Your task to perform on an android device: Is it going to rain tomorrow? Image 0: 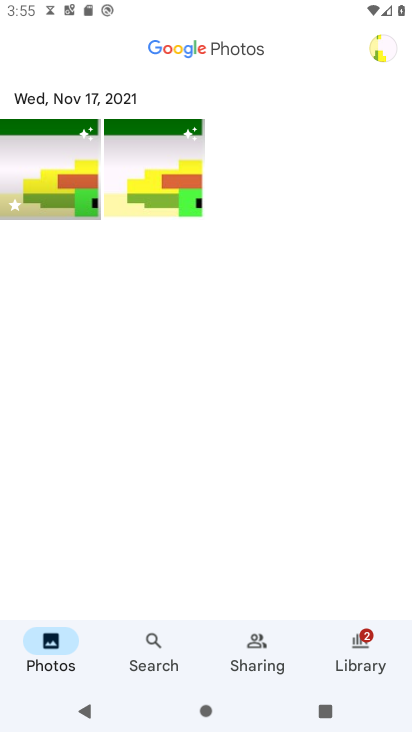
Step 0: press home button
Your task to perform on an android device: Is it going to rain tomorrow? Image 1: 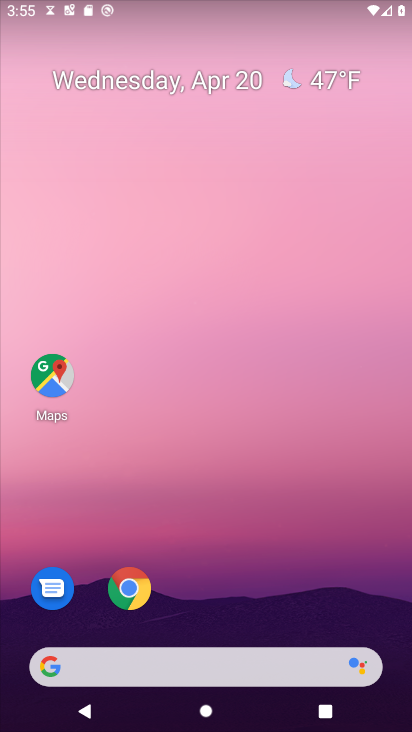
Step 1: drag from (251, 576) to (388, 3)
Your task to perform on an android device: Is it going to rain tomorrow? Image 2: 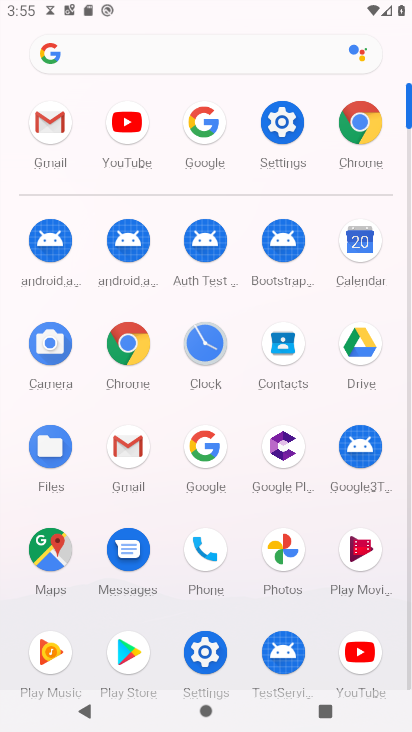
Step 2: click (165, 67)
Your task to perform on an android device: Is it going to rain tomorrow? Image 3: 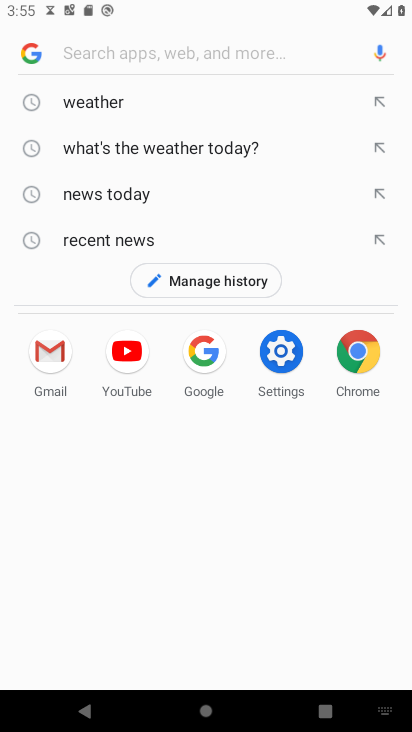
Step 3: click (175, 47)
Your task to perform on an android device: Is it going to rain tomorrow? Image 4: 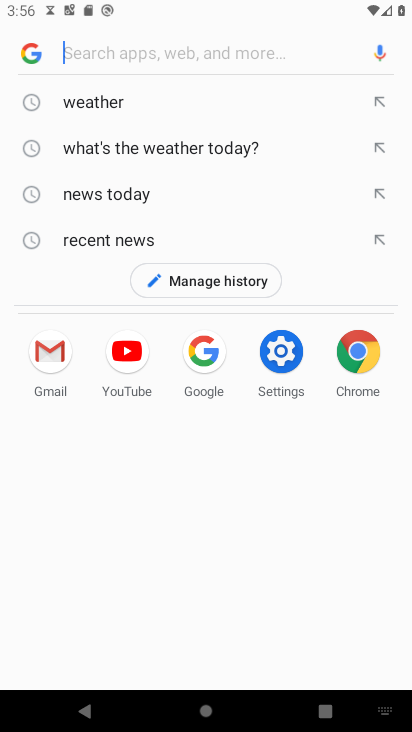
Step 4: type "is it going to rain tomorrow"
Your task to perform on an android device: Is it going to rain tomorrow? Image 5: 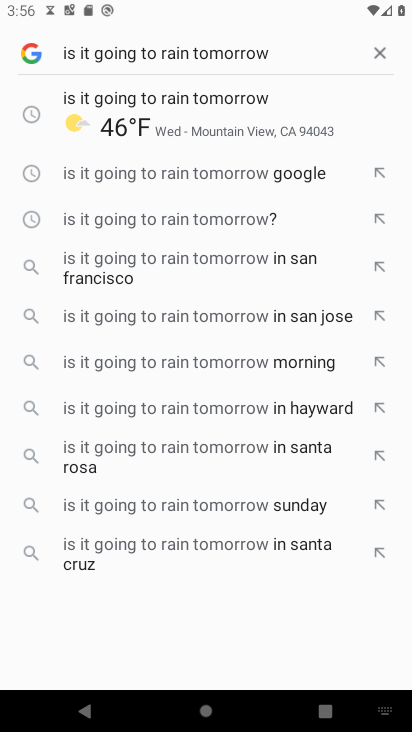
Step 5: click (195, 127)
Your task to perform on an android device: Is it going to rain tomorrow? Image 6: 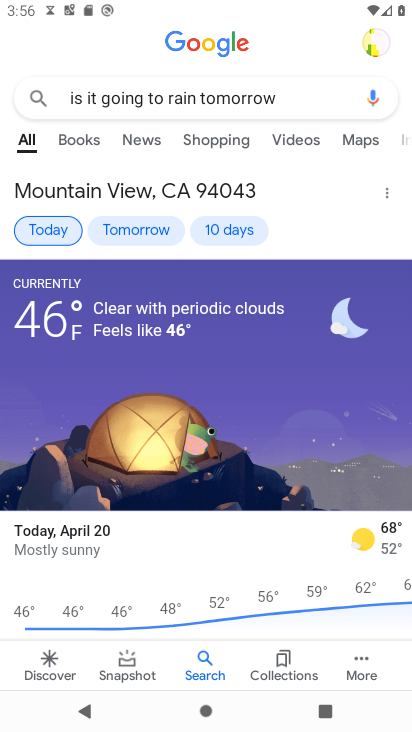
Step 6: click (133, 235)
Your task to perform on an android device: Is it going to rain tomorrow? Image 7: 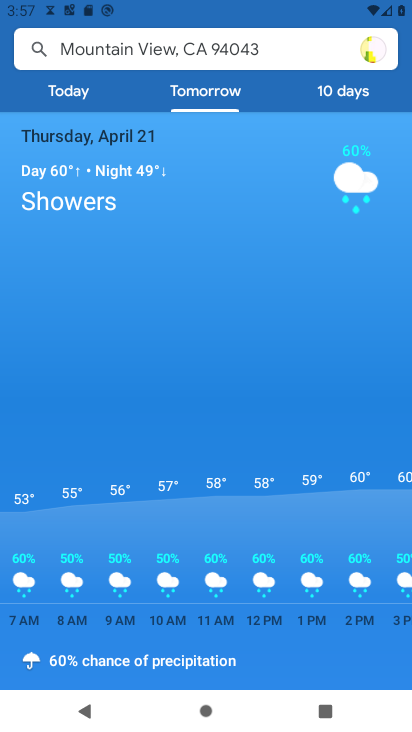
Step 7: task complete